Your task to perform on an android device: check battery use Image 0: 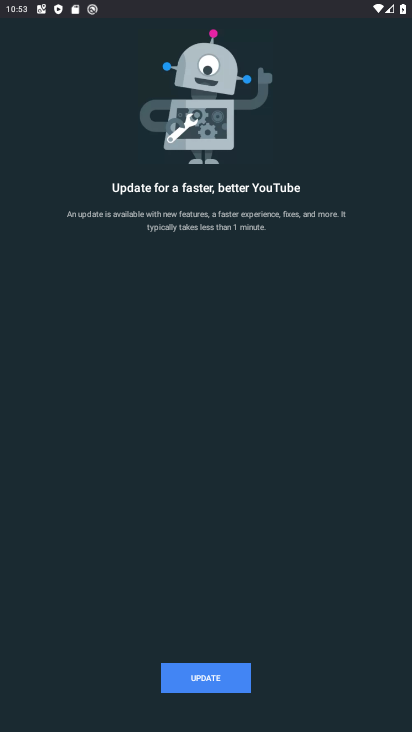
Step 0: press home button
Your task to perform on an android device: check battery use Image 1: 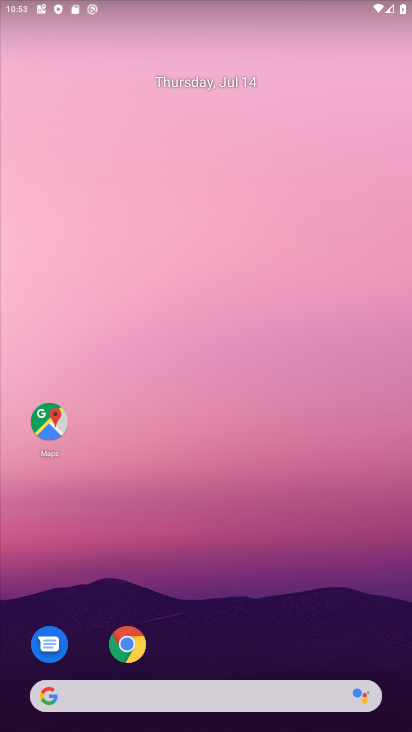
Step 1: drag from (212, 688) to (208, 57)
Your task to perform on an android device: check battery use Image 2: 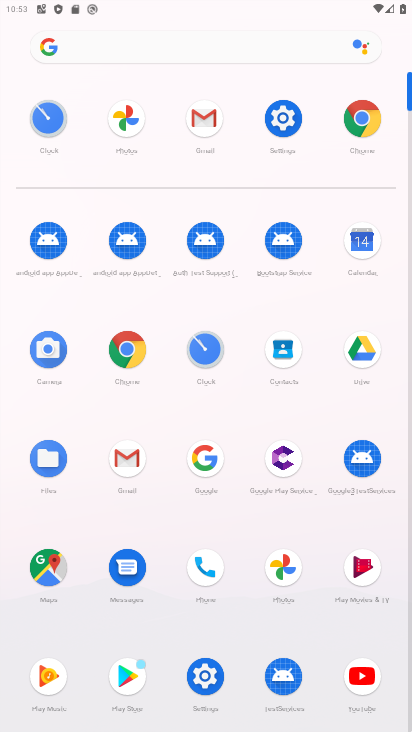
Step 2: click (292, 129)
Your task to perform on an android device: check battery use Image 3: 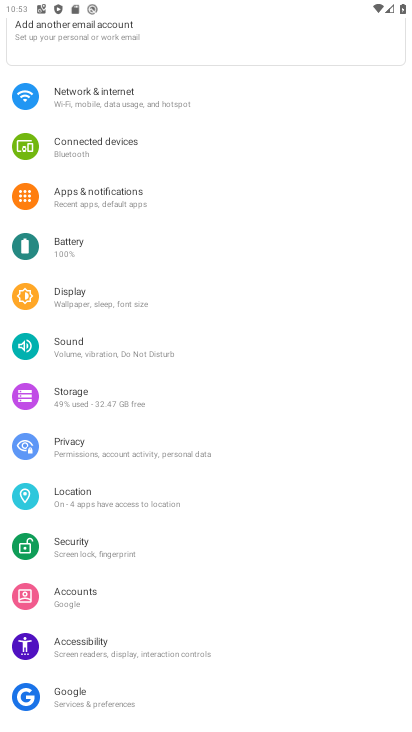
Step 3: click (97, 244)
Your task to perform on an android device: check battery use Image 4: 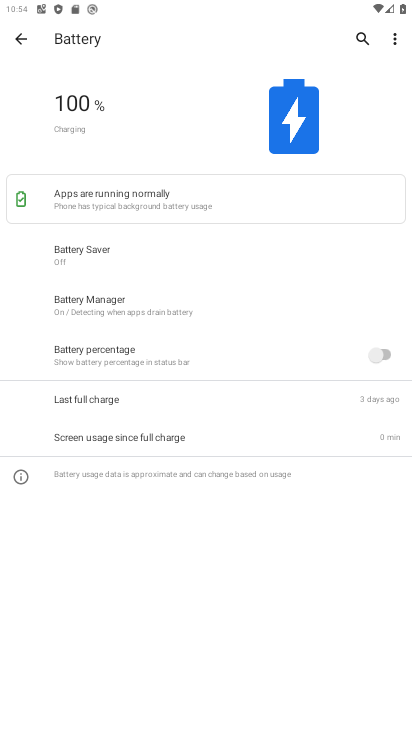
Step 4: click (403, 35)
Your task to perform on an android device: check battery use Image 5: 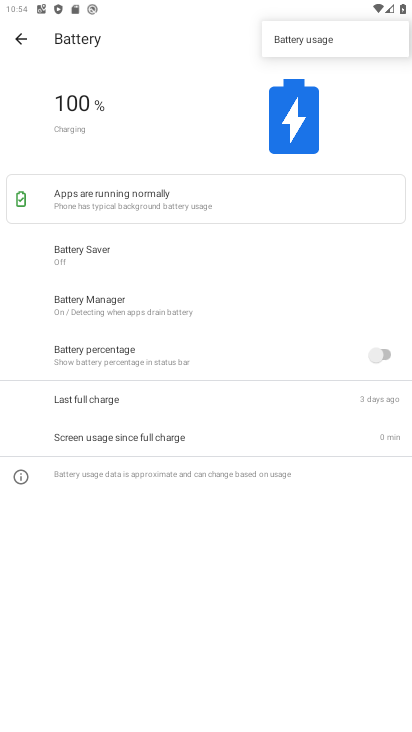
Step 5: click (341, 48)
Your task to perform on an android device: check battery use Image 6: 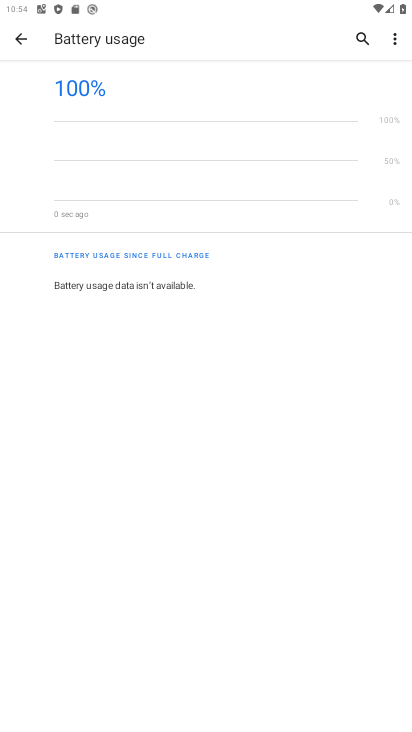
Step 6: task complete